Your task to perform on an android device: turn smart compose on in the gmail app Image 0: 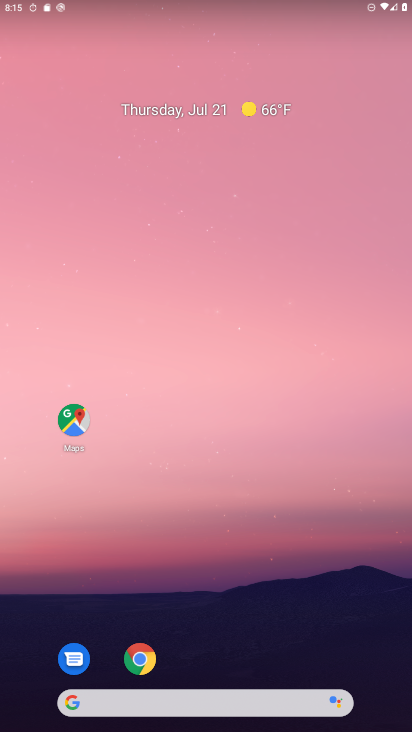
Step 0: drag from (240, 644) to (408, 365)
Your task to perform on an android device: turn smart compose on in the gmail app Image 1: 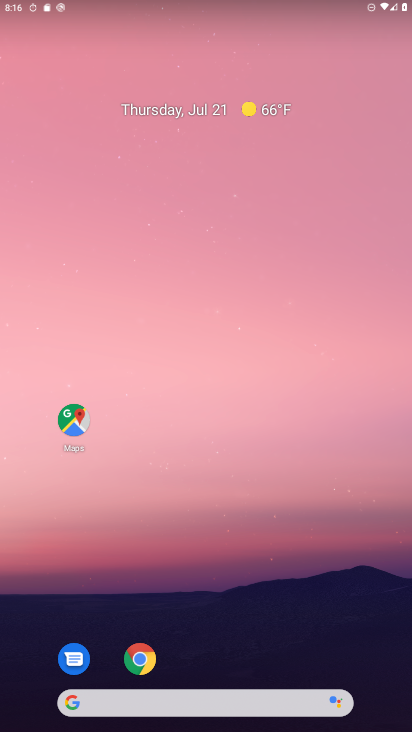
Step 1: drag from (253, 675) to (328, 300)
Your task to perform on an android device: turn smart compose on in the gmail app Image 2: 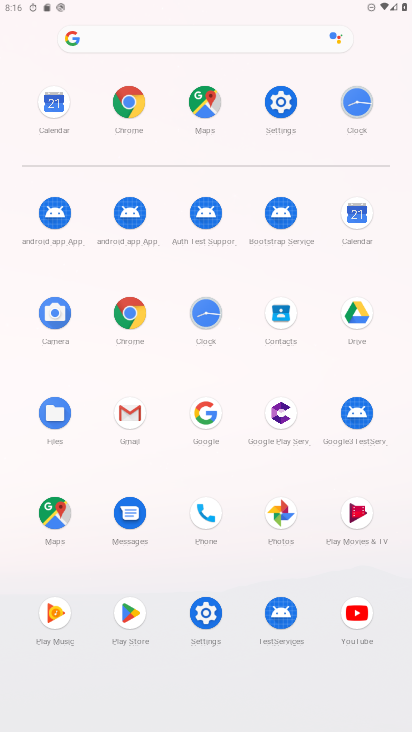
Step 2: click (129, 419)
Your task to perform on an android device: turn smart compose on in the gmail app Image 3: 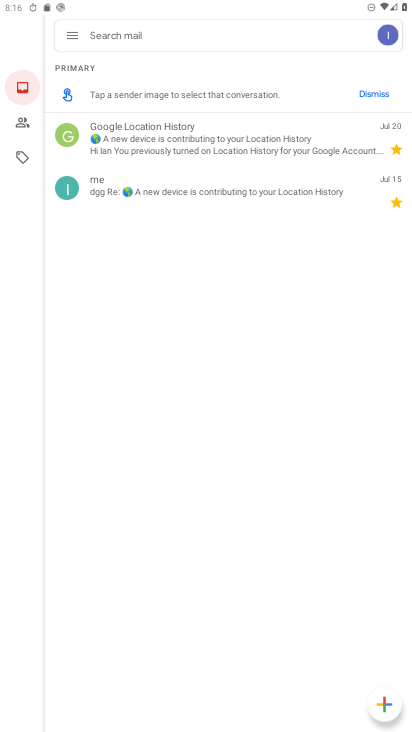
Step 3: click (70, 29)
Your task to perform on an android device: turn smart compose on in the gmail app Image 4: 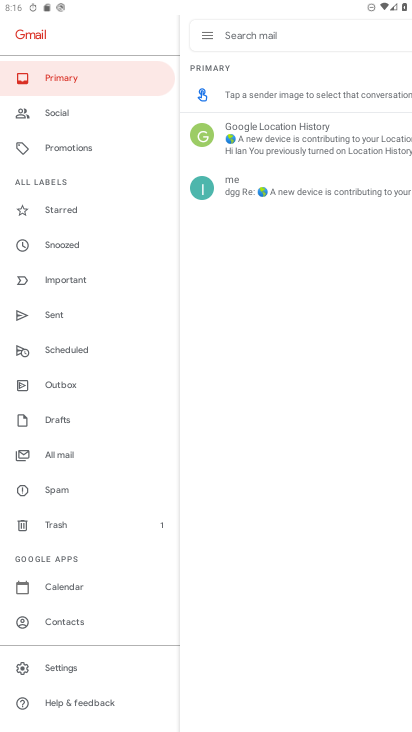
Step 4: click (71, 663)
Your task to perform on an android device: turn smart compose on in the gmail app Image 5: 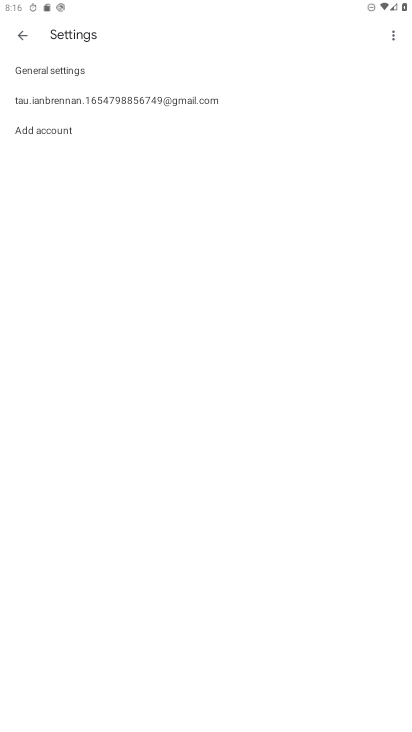
Step 5: click (108, 103)
Your task to perform on an android device: turn smart compose on in the gmail app Image 6: 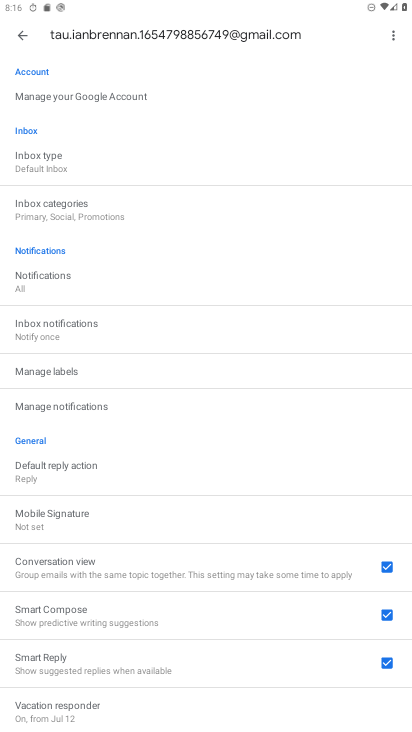
Step 6: task complete